Your task to perform on an android device: Open Amazon Image 0: 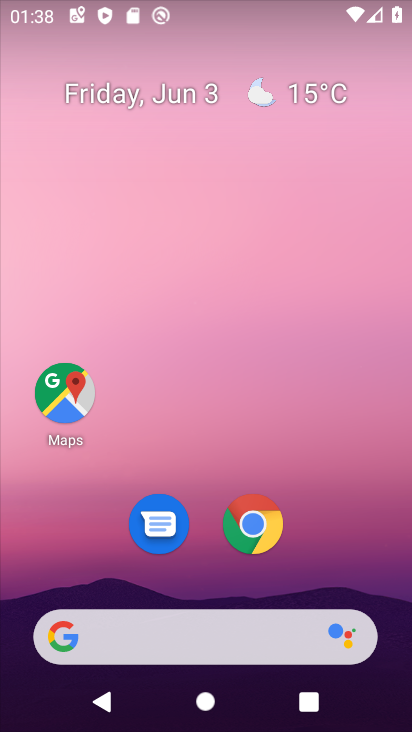
Step 0: click (257, 529)
Your task to perform on an android device: Open Amazon Image 1: 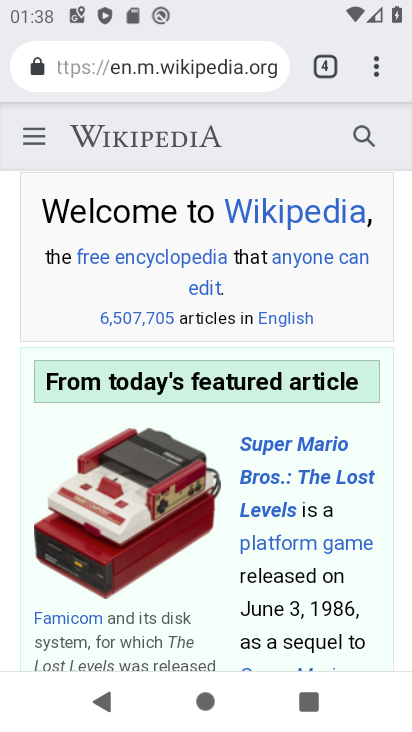
Step 1: click (378, 75)
Your task to perform on an android device: Open Amazon Image 2: 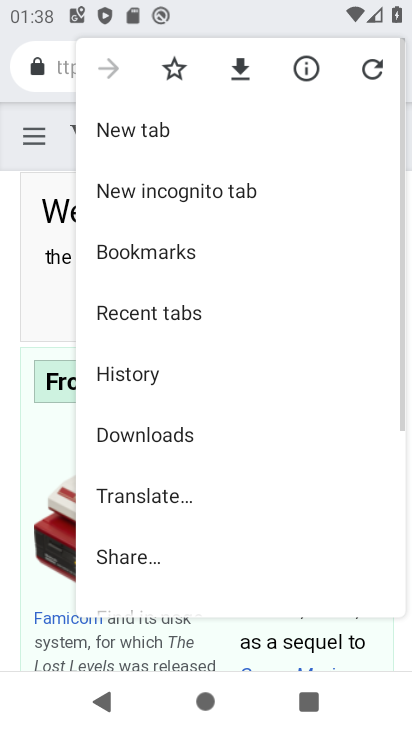
Step 2: click (309, 117)
Your task to perform on an android device: Open Amazon Image 3: 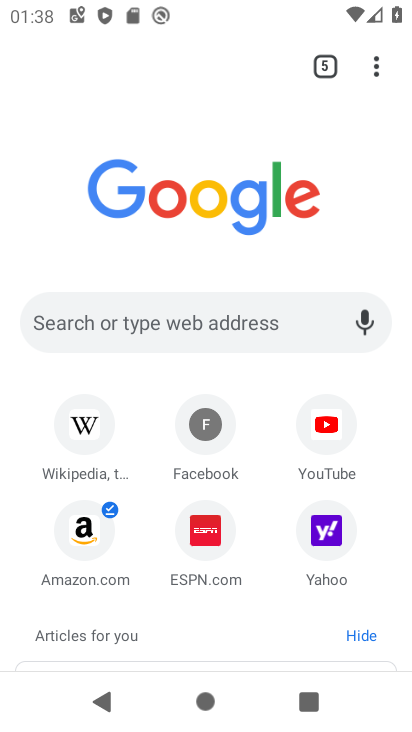
Step 3: click (95, 534)
Your task to perform on an android device: Open Amazon Image 4: 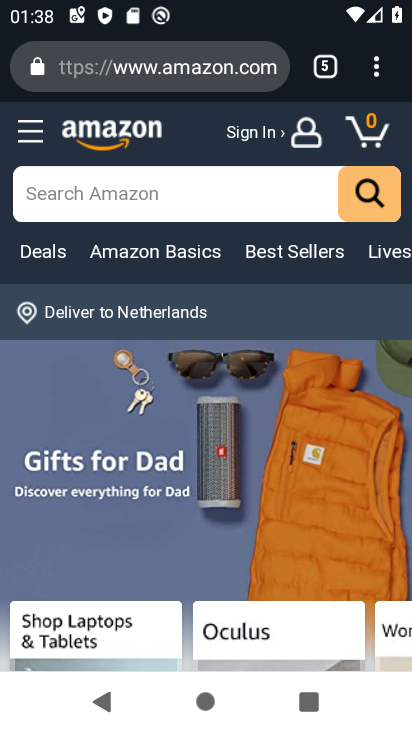
Step 4: task complete